Your task to perform on an android device: Go to Yahoo.com Image 0: 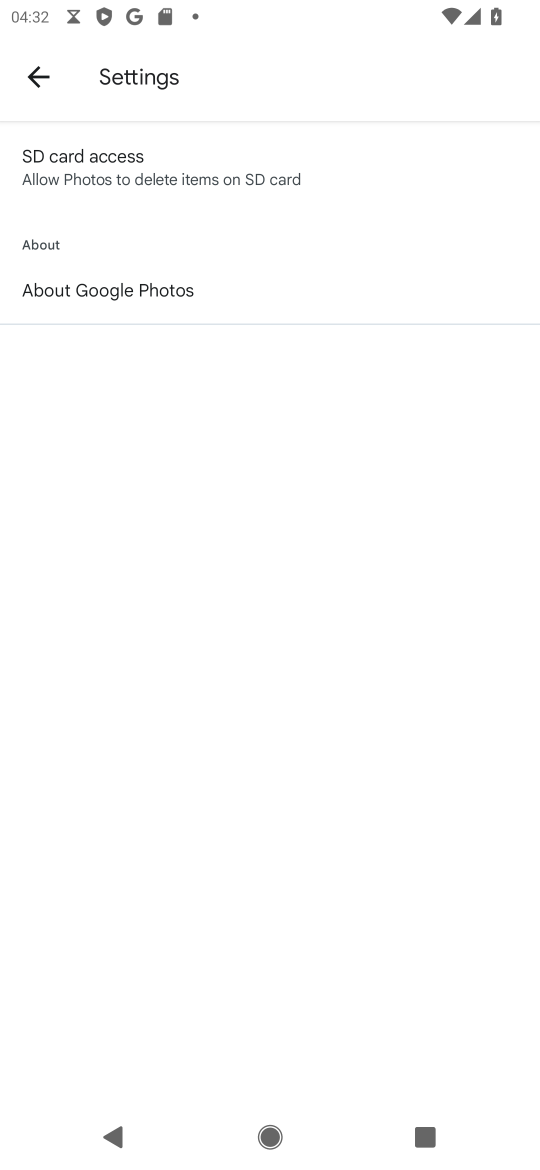
Step 0: press home button
Your task to perform on an android device: Go to Yahoo.com Image 1: 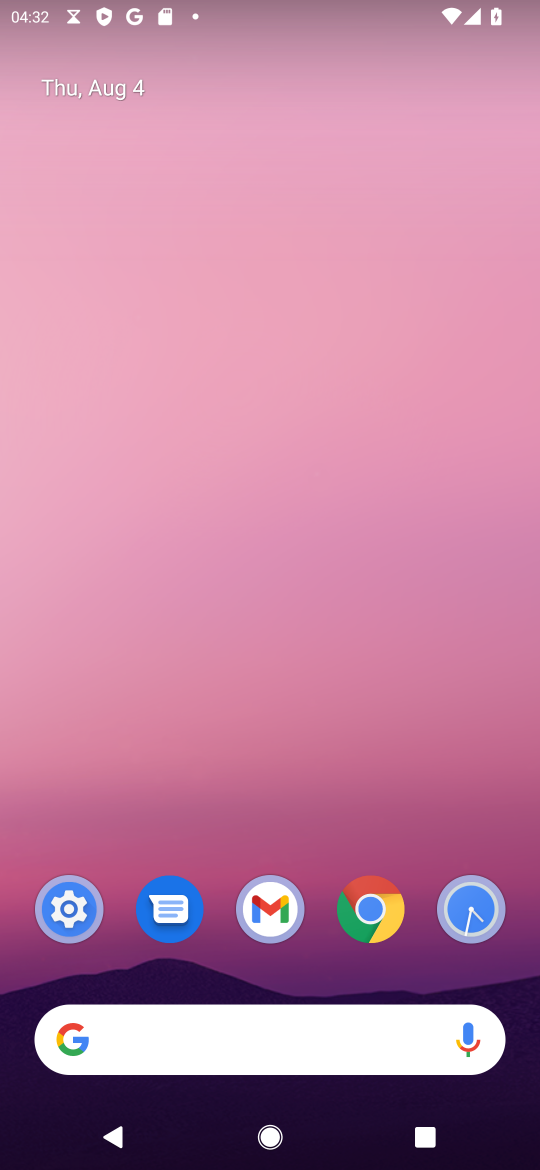
Step 1: click (367, 900)
Your task to perform on an android device: Go to Yahoo.com Image 2: 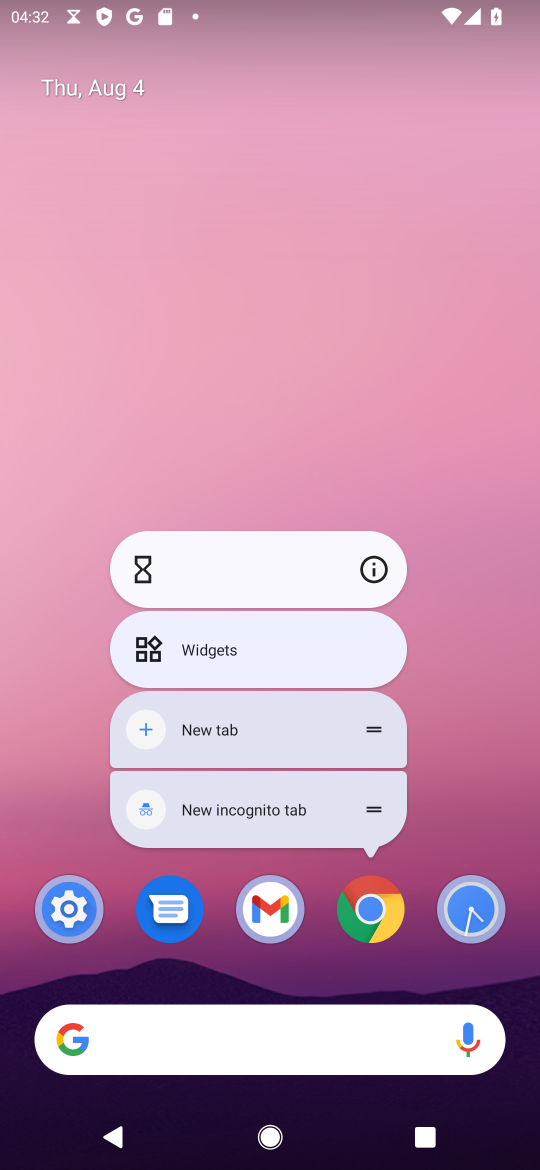
Step 2: click (362, 917)
Your task to perform on an android device: Go to Yahoo.com Image 3: 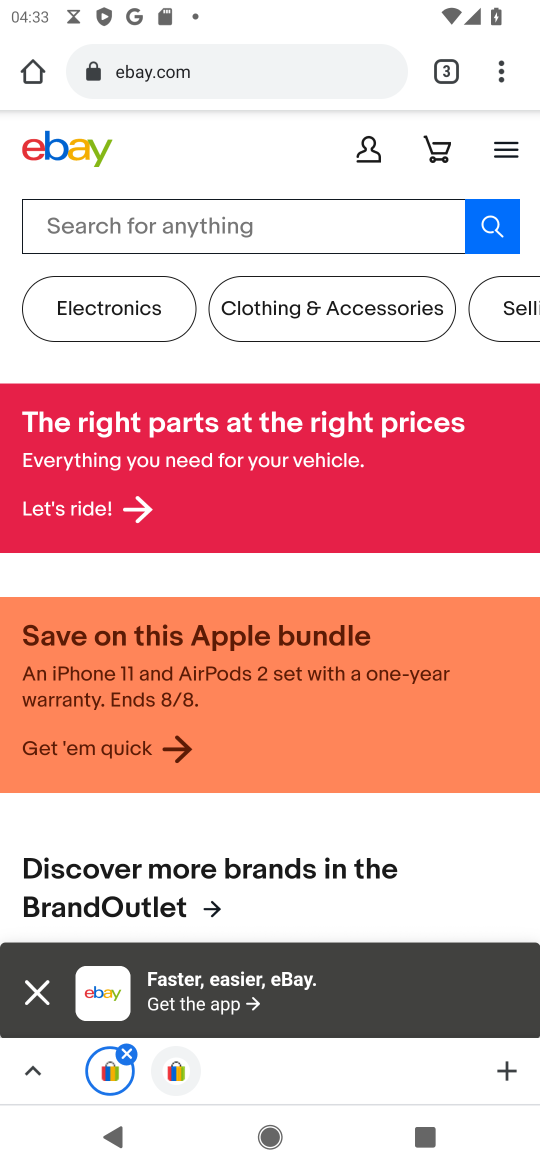
Step 3: drag from (504, 67) to (272, 217)
Your task to perform on an android device: Go to Yahoo.com Image 4: 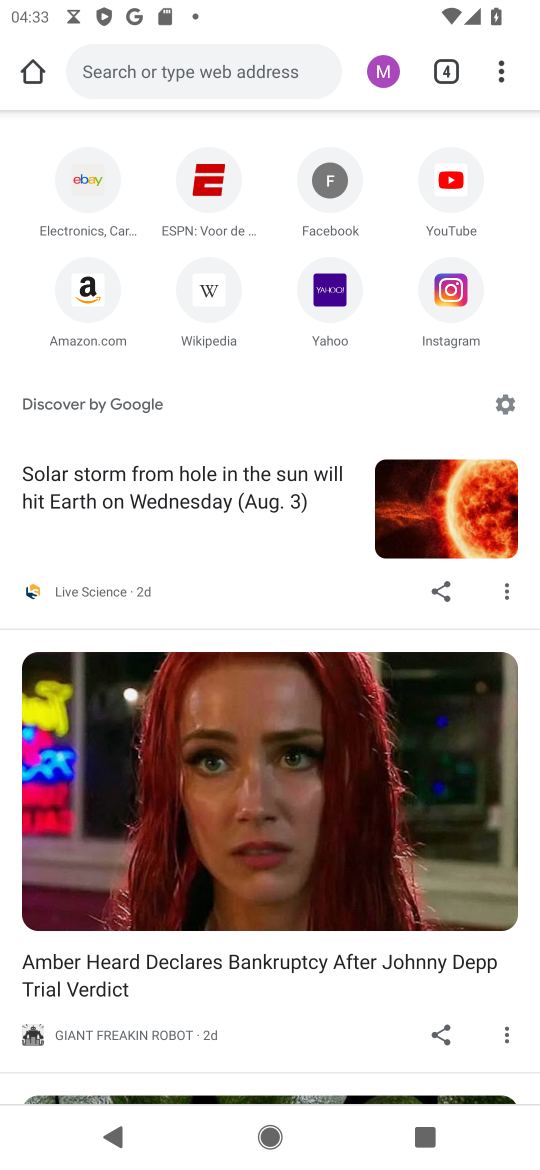
Step 4: click (330, 305)
Your task to perform on an android device: Go to Yahoo.com Image 5: 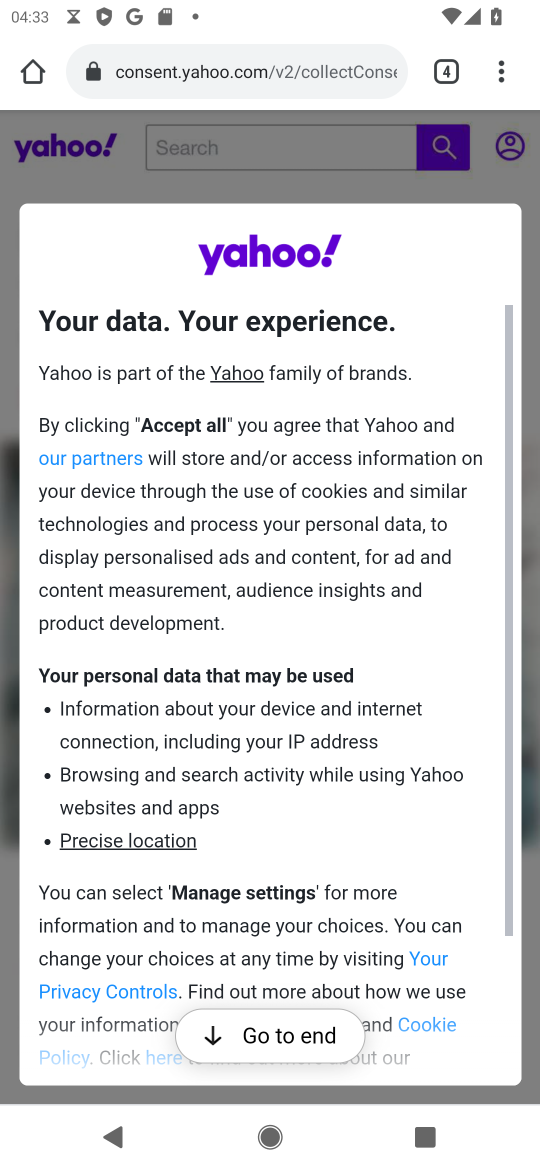
Step 5: click (249, 1034)
Your task to perform on an android device: Go to Yahoo.com Image 6: 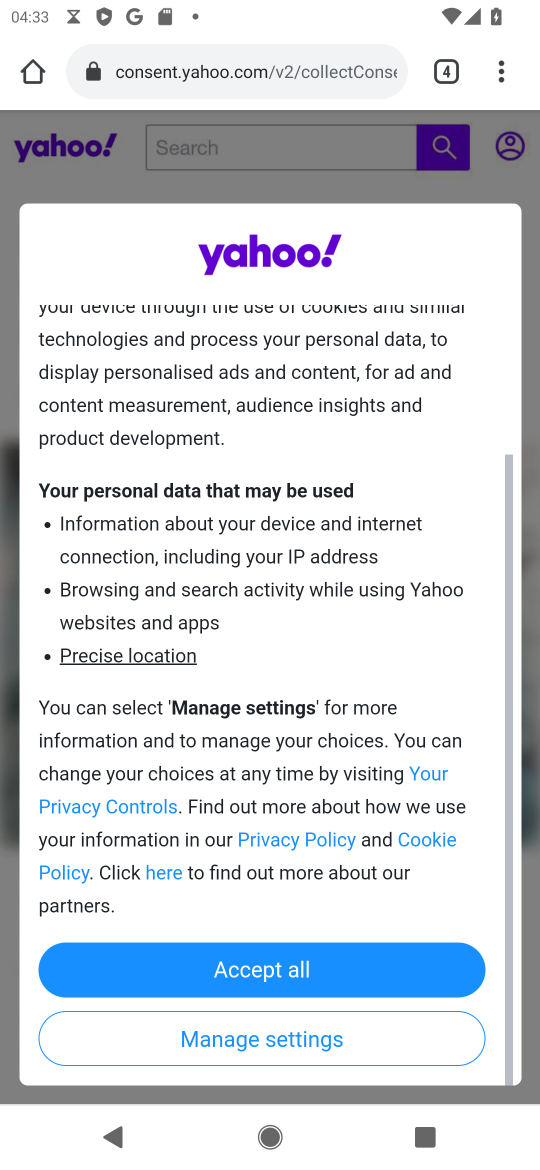
Step 6: click (262, 979)
Your task to perform on an android device: Go to Yahoo.com Image 7: 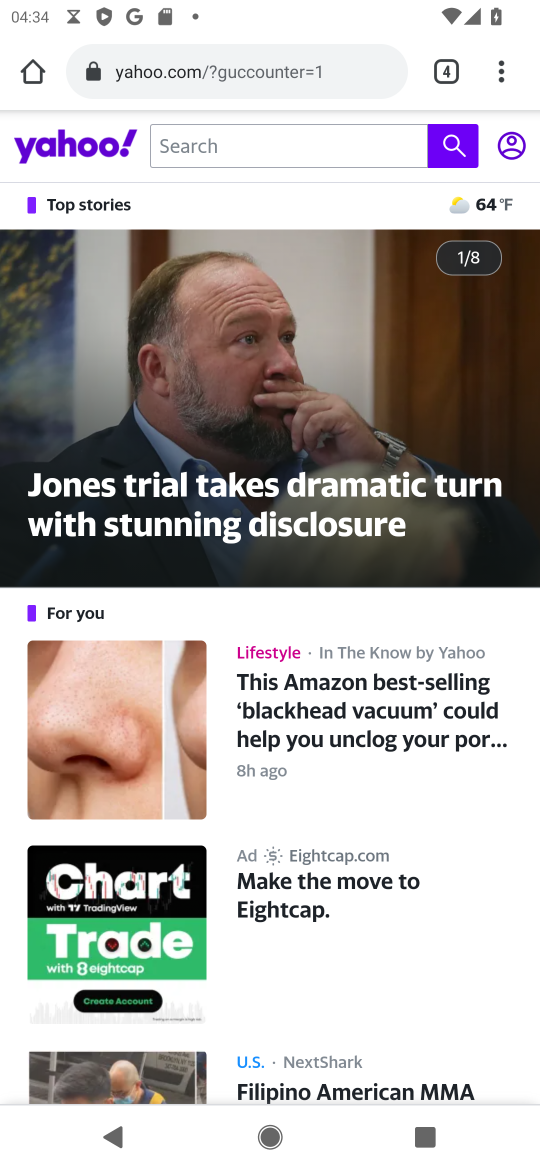
Step 7: task complete